Your task to perform on an android device: Open calendar and show me the first week of next month Image 0: 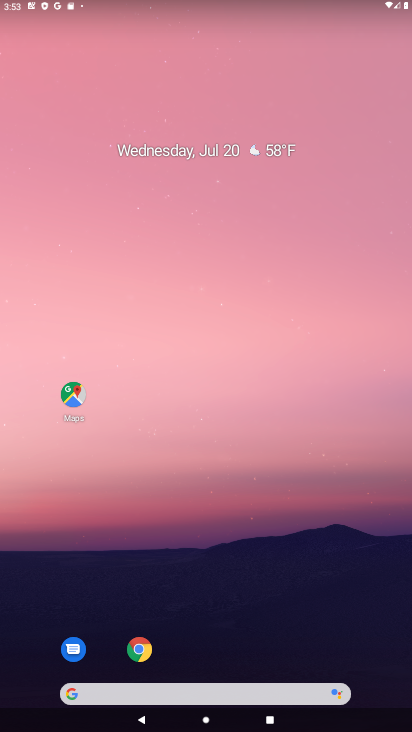
Step 0: drag from (241, 720) to (241, 677)
Your task to perform on an android device: Open calendar and show me the first week of next month Image 1: 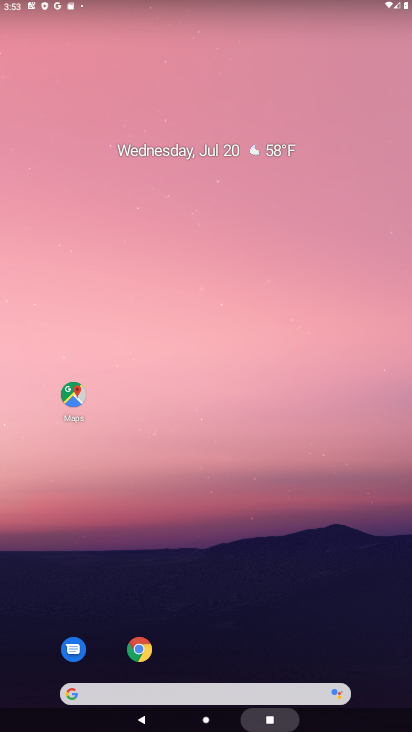
Step 1: drag from (245, 285) to (245, 177)
Your task to perform on an android device: Open calendar and show me the first week of next month Image 2: 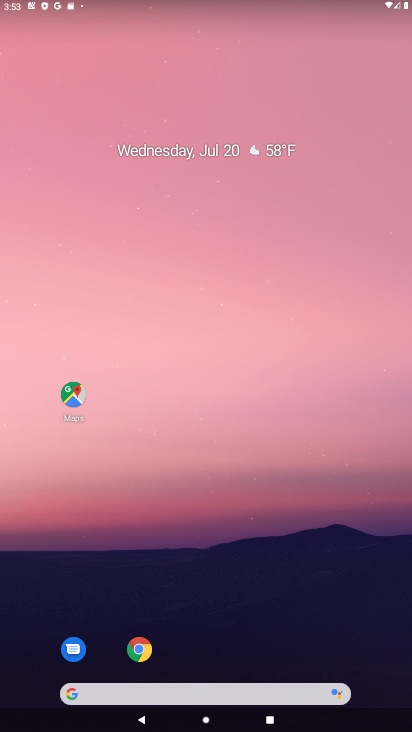
Step 2: drag from (239, 725) to (231, 41)
Your task to perform on an android device: Open calendar and show me the first week of next month Image 3: 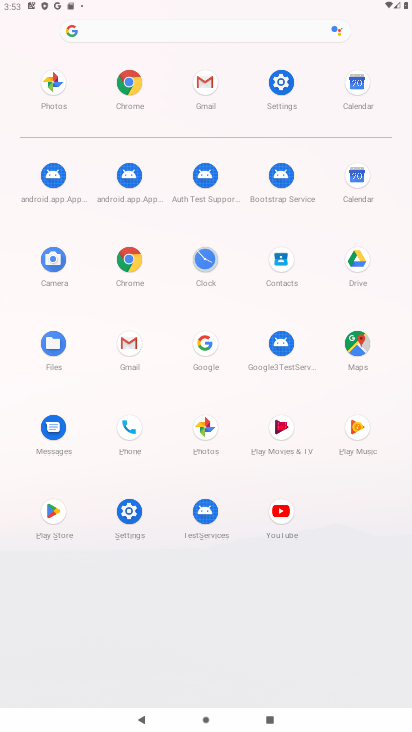
Step 3: click (361, 176)
Your task to perform on an android device: Open calendar and show me the first week of next month Image 4: 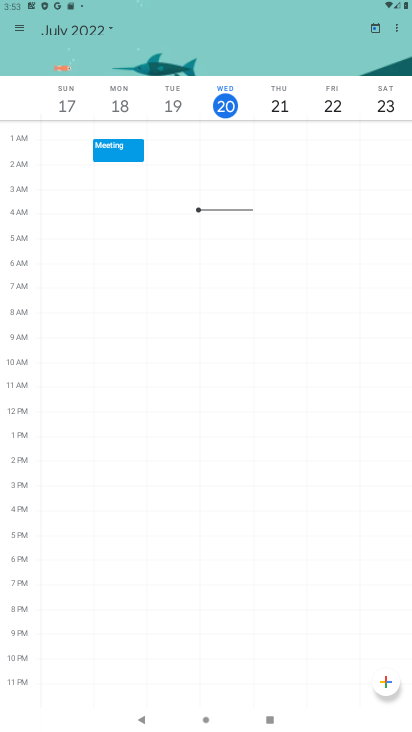
Step 4: click (109, 26)
Your task to perform on an android device: Open calendar and show me the first week of next month Image 5: 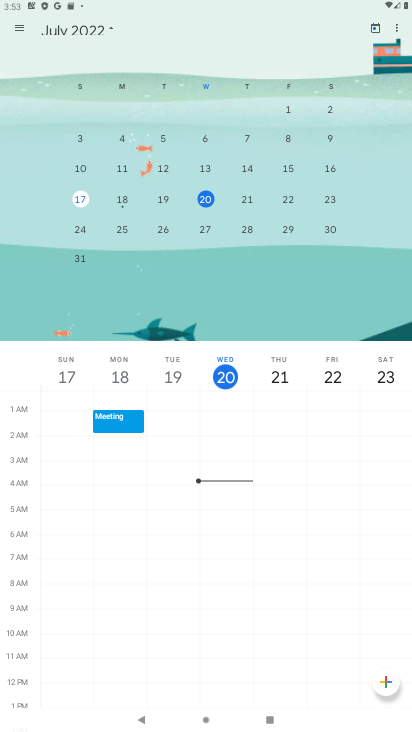
Step 5: drag from (216, 192) to (14, 192)
Your task to perform on an android device: Open calendar and show me the first week of next month Image 6: 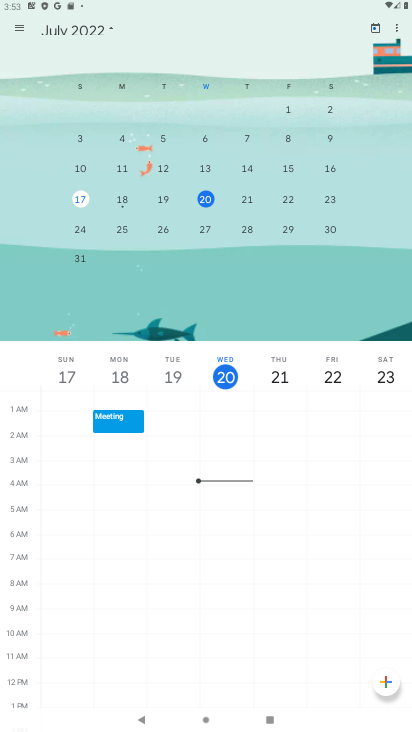
Step 6: drag from (253, 158) to (112, 157)
Your task to perform on an android device: Open calendar and show me the first week of next month Image 7: 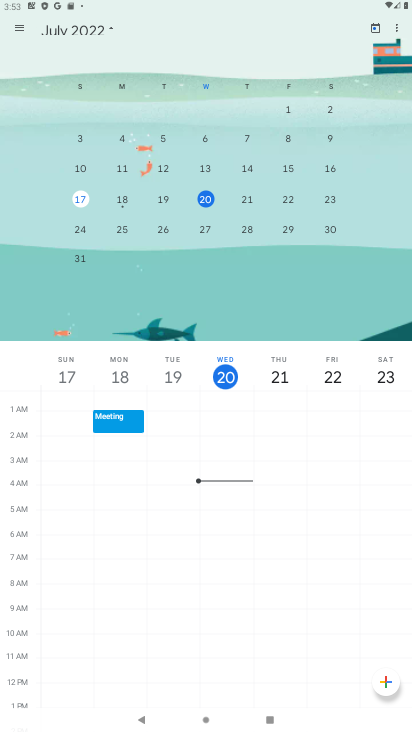
Step 7: drag from (326, 181) to (95, 177)
Your task to perform on an android device: Open calendar and show me the first week of next month Image 8: 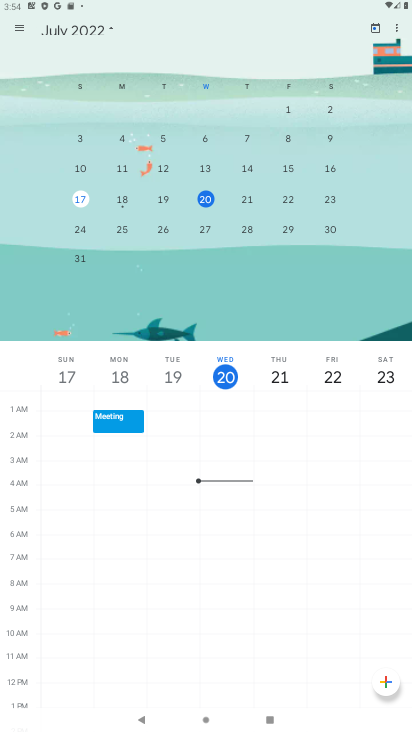
Step 8: drag from (320, 209) to (4, 208)
Your task to perform on an android device: Open calendar and show me the first week of next month Image 9: 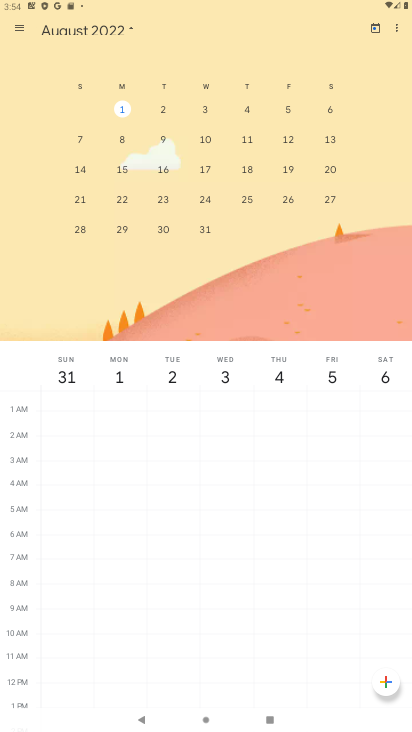
Step 9: click (119, 102)
Your task to perform on an android device: Open calendar and show me the first week of next month Image 10: 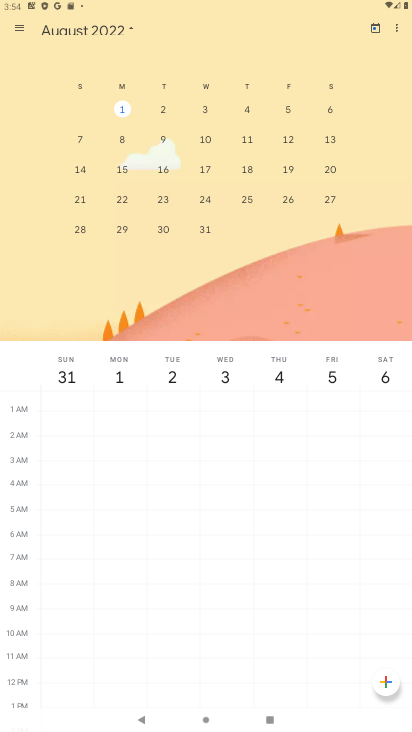
Step 10: click (18, 24)
Your task to perform on an android device: Open calendar and show me the first week of next month Image 11: 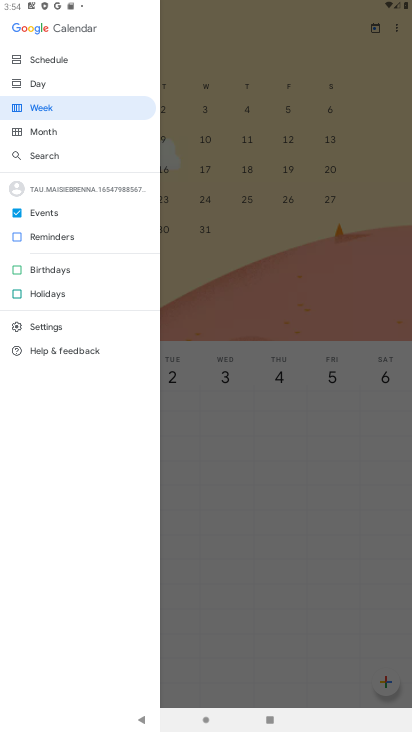
Step 11: click (74, 108)
Your task to perform on an android device: Open calendar and show me the first week of next month Image 12: 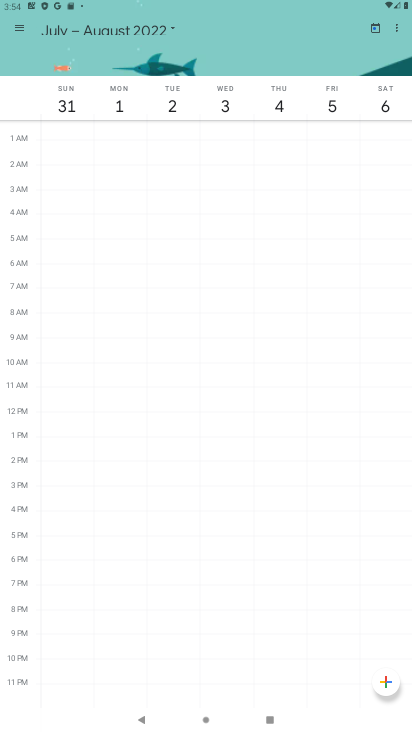
Step 12: task complete